Your task to perform on an android device: Is it going to rain tomorrow? Image 0: 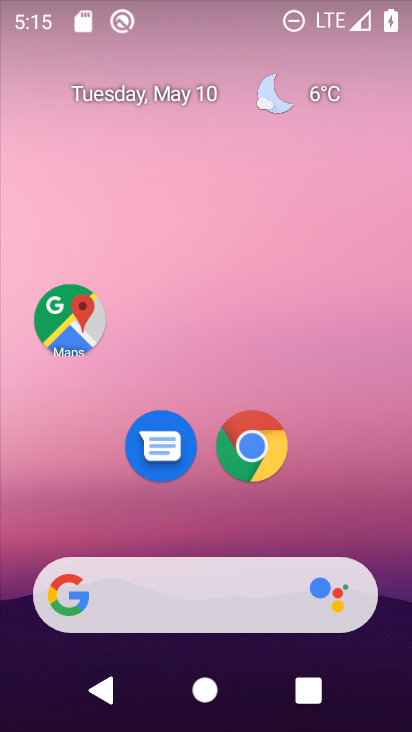
Step 0: drag from (215, 488) to (167, 118)
Your task to perform on an android device: Is it going to rain tomorrow? Image 1: 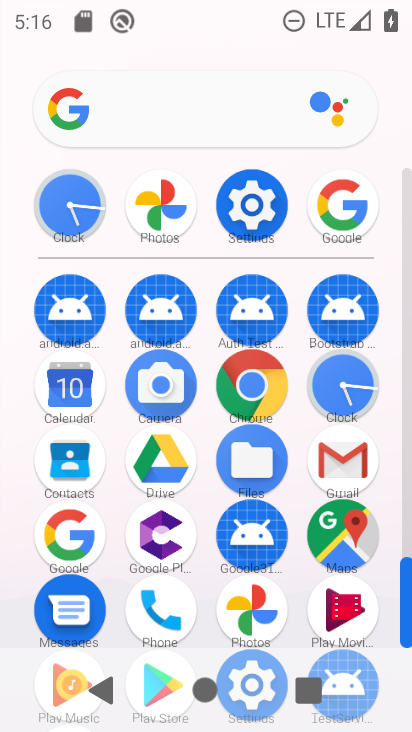
Step 1: click (76, 540)
Your task to perform on an android device: Is it going to rain tomorrow? Image 2: 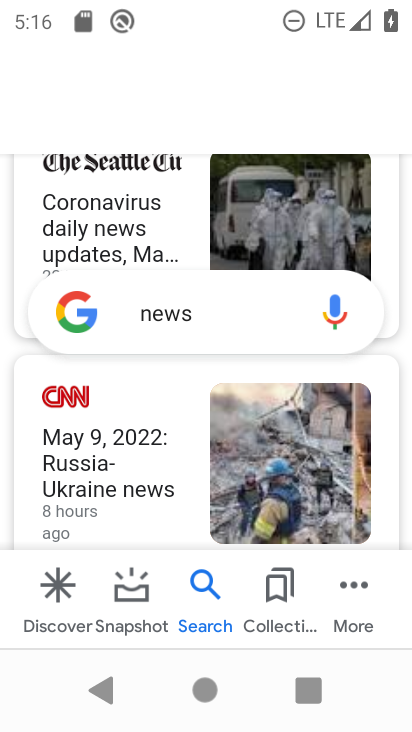
Step 2: drag from (133, 191) to (126, 596)
Your task to perform on an android device: Is it going to rain tomorrow? Image 3: 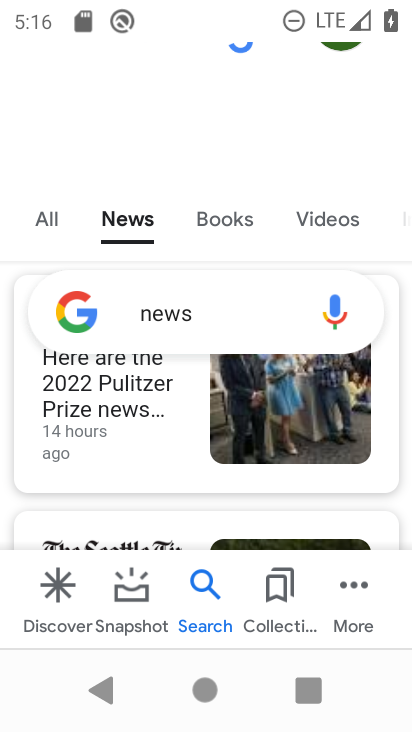
Step 3: drag from (151, 198) to (131, 629)
Your task to perform on an android device: Is it going to rain tomorrow? Image 4: 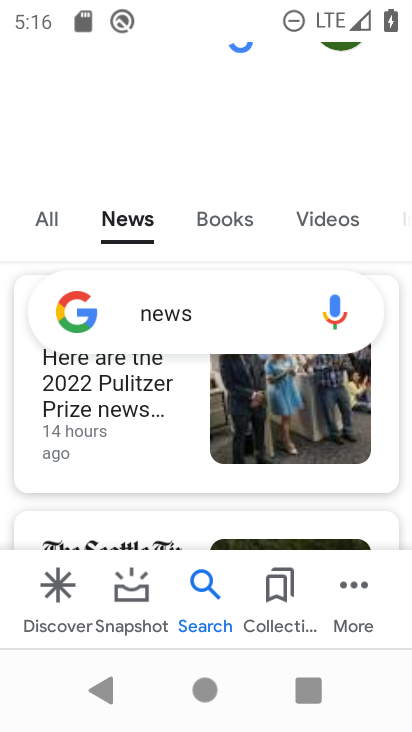
Step 4: drag from (127, 397) to (131, 669)
Your task to perform on an android device: Is it going to rain tomorrow? Image 5: 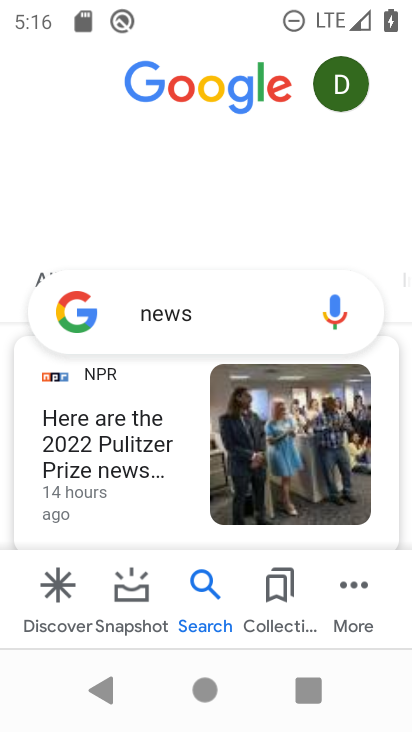
Step 5: drag from (169, 231) to (116, 626)
Your task to perform on an android device: Is it going to rain tomorrow? Image 6: 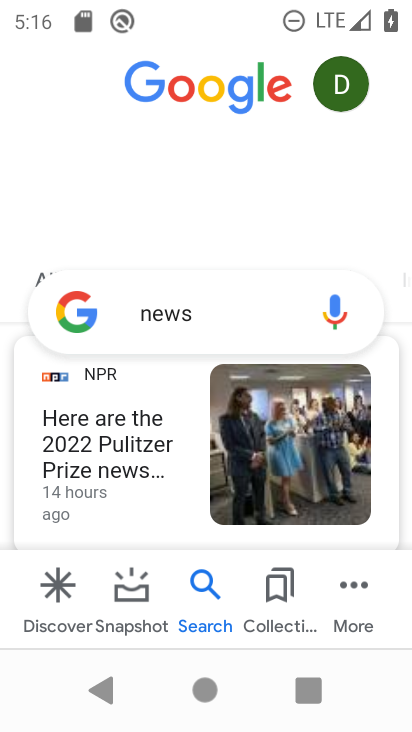
Step 6: click (250, 300)
Your task to perform on an android device: Is it going to rain tomorrow? Image 7: 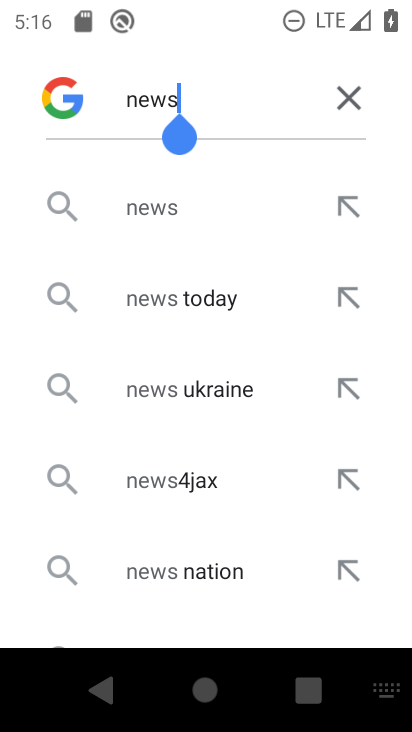
Step 7: click (341, 101)
Your task to perform on an android device: Is it going to rain tomorrow? Image 8: 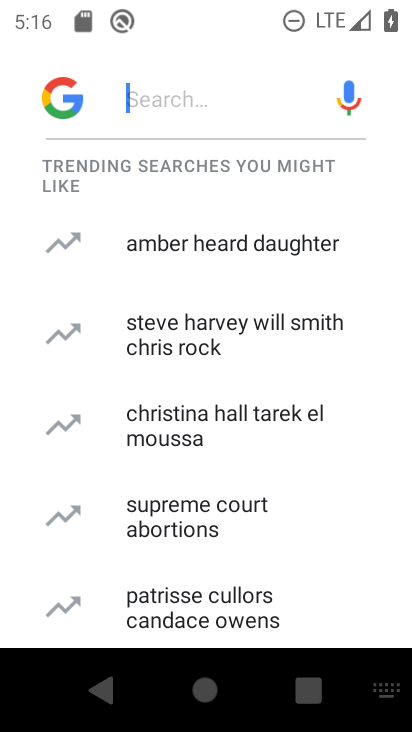
Step 8: type "is it going to rain tomorrow ?"
Your task to perform on an android device: Is it going to rain tomorrow? Image 9: 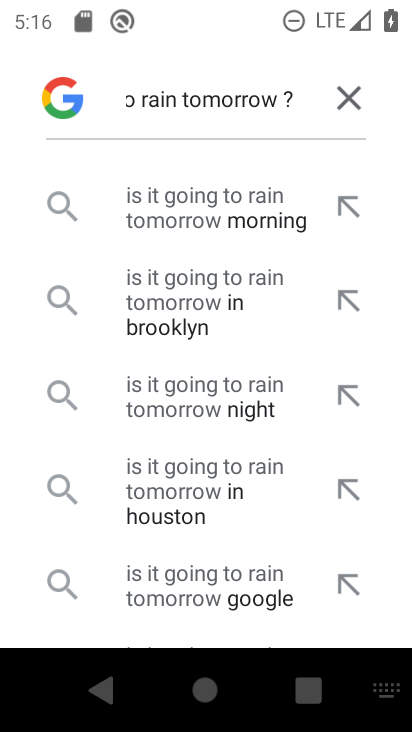
Step 9: click (198, 590)
Your task to perform on an android device: Is it going to rain tomorrow? Image 10: 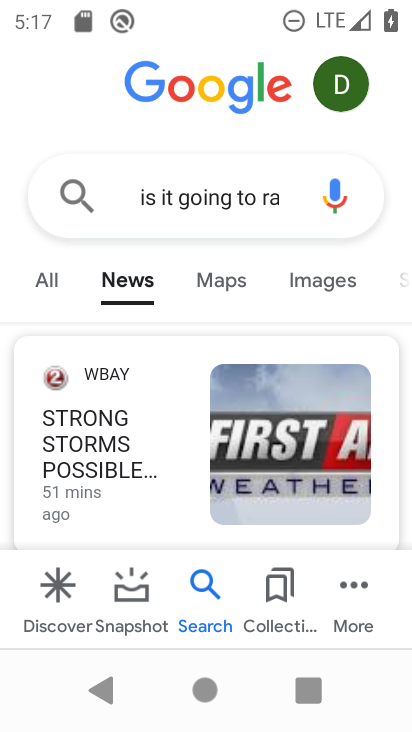
Step 10: click (49, 276)
Your task to perform on an android device: Is it going to rain tomorrow? Image 11: 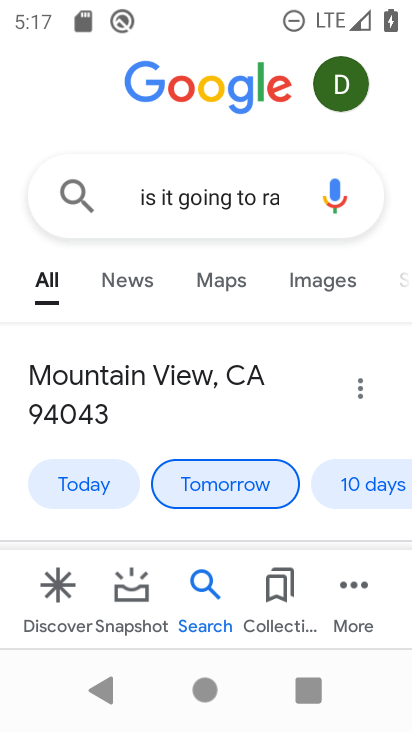
Step 11: task complete